Your task to perform on an android device: turn on improve location accuracy Image 0: 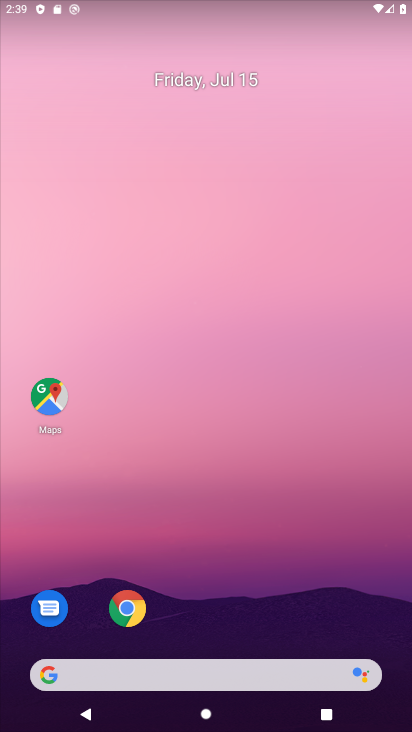
Step 0: click (286, 533)
Your task to perform on an android device: turn on improve location accuracy Image 1: 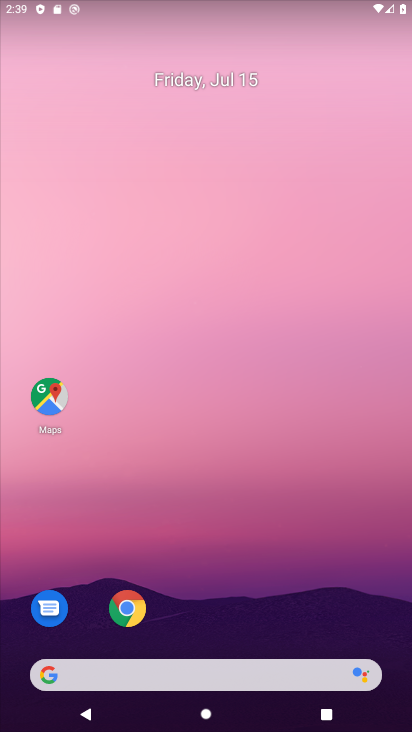
Step 1: press home button
Your task to perform on an android device: turn on improve location accuracy Image 2: 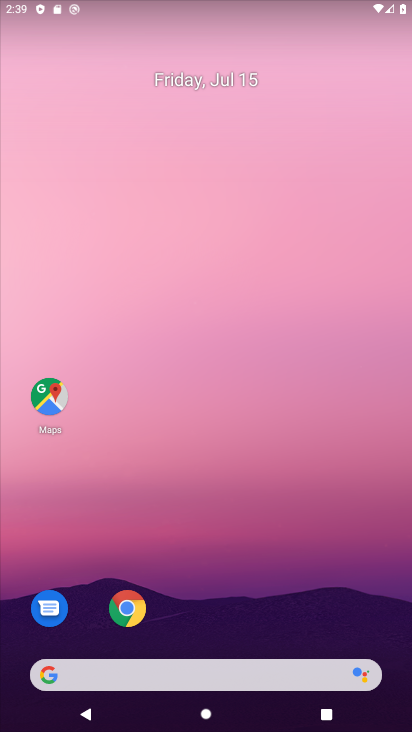
Step 2: press home button
Your task to perform on an android device: turn on improve location accuracy Image 3: 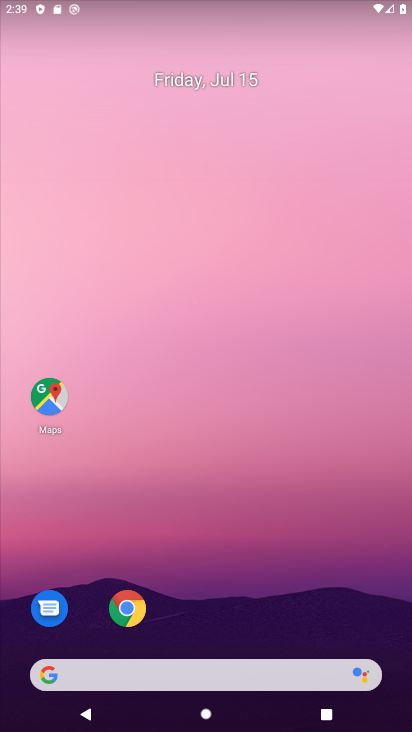
Step 3: drag from (221, 656) to (292, 138)
Your task to perform on an android device: turn on improve location accuracy Image 4: 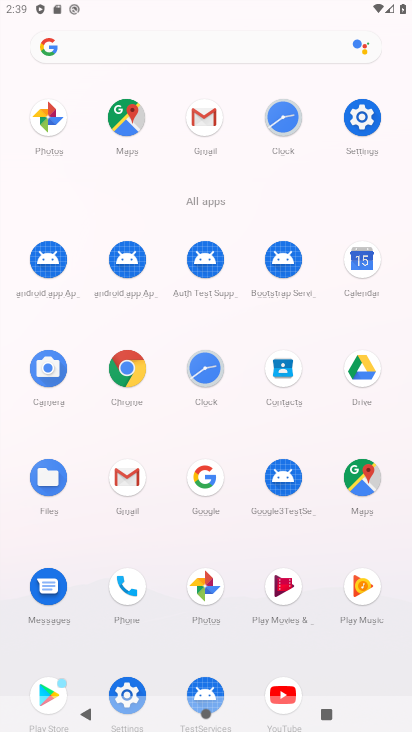
Step 4: click (125, 697)
Your task to perform on an android device: turn on improve location accuracy Image 5: 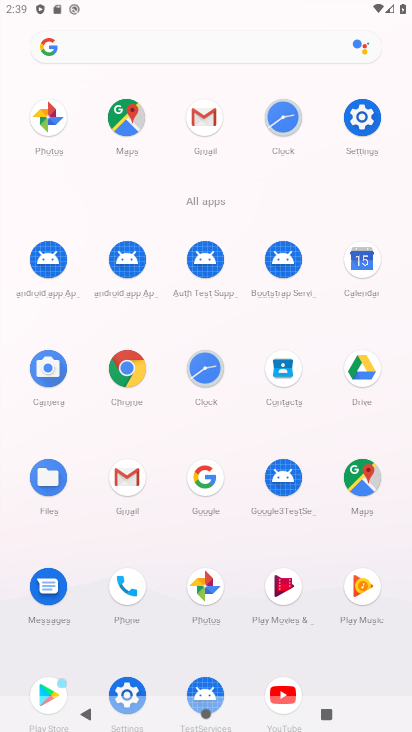
Step 5: click (131, 690)
Your task to perform on an android device: turn on improve location accuracy Image 6: 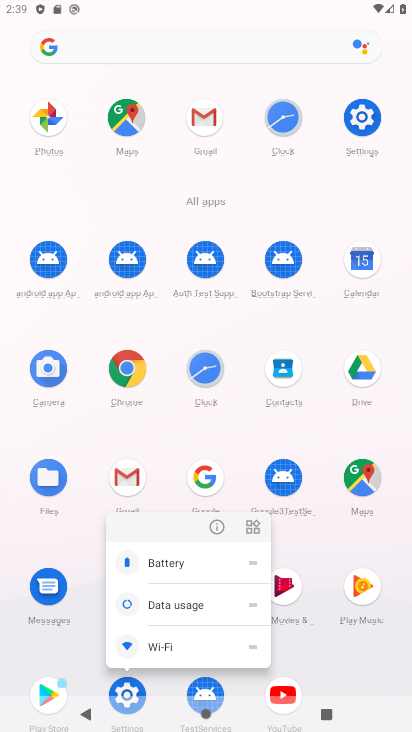
Step 6: click (131, 690)
Your task to perform on an android device: turn on improve location accuracy Image 7: 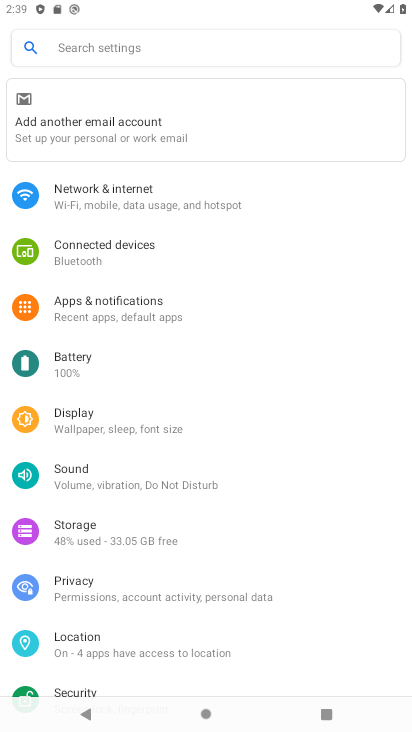
Step 7: click (108, 649)
Your task to perform on an android device: turn on improve location accuracy Image 8: 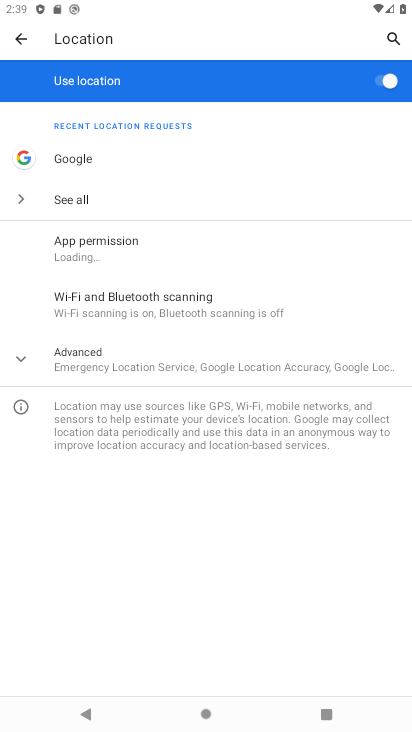
Step 8: click (135, 370)
Your task to perform on an android device: turn on improve location accuracy Image 9: 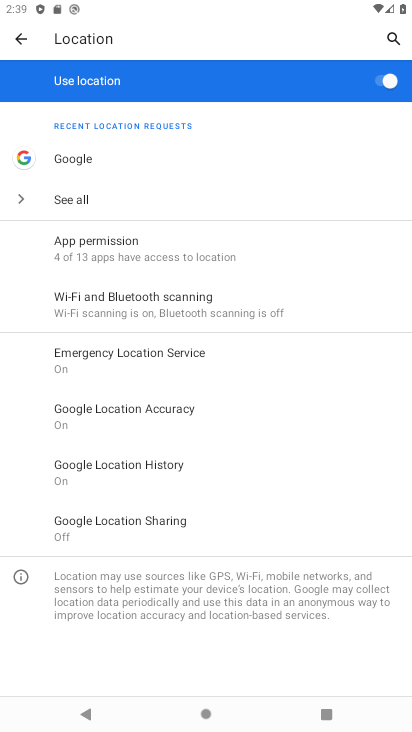
Step 9: click (212, 406)
Your task to perform on an android device: turn on improve location accuracy Image 10: 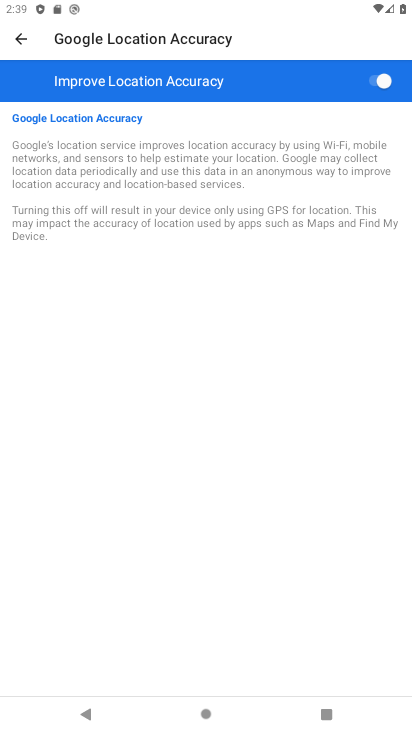
Step 10: task complete